Your task to perform on an android device: Open calendar and show me the third week of next month Image 0: 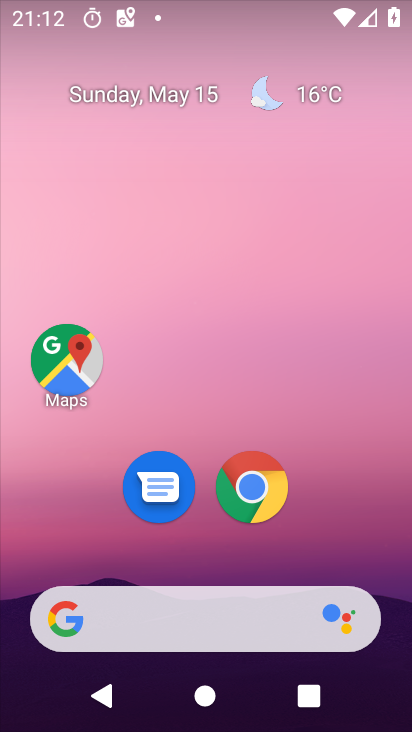
Step 0: drag from (392, 638) to (349, 177)
Your task to perform on an android device: Open calendar and show me the third week of next month Image 1: 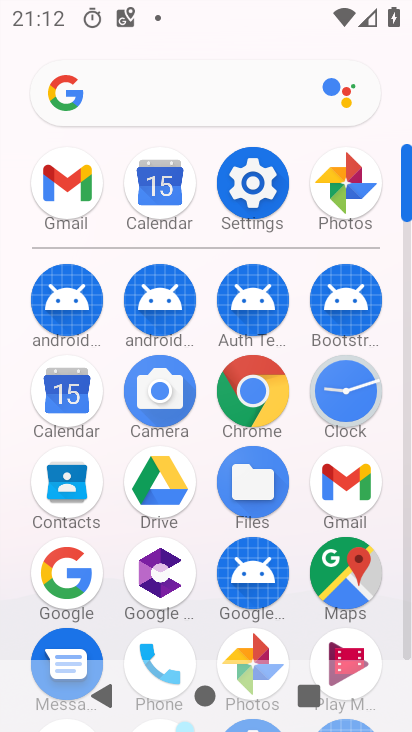
Step 1: click (64, 410)
Your task to perform on an android device: Open calendar and show me the third week of next month Image 2: 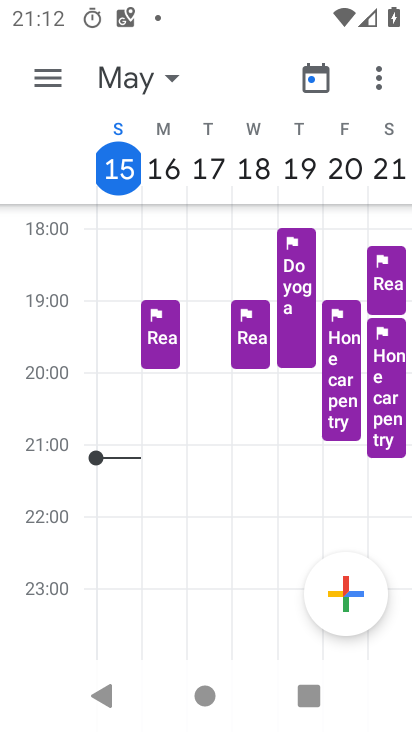
Step 2: click (45, 76)
Your task to perform on an android device: Open calendar and show me the third week of next month Image 3: 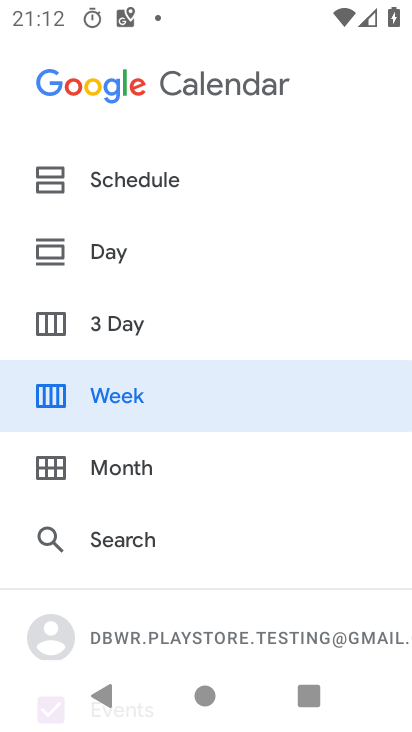
Step 3: click (108, 398)
Your task to perform on an android device: Open calendar and show me the third week of next month Image 4: 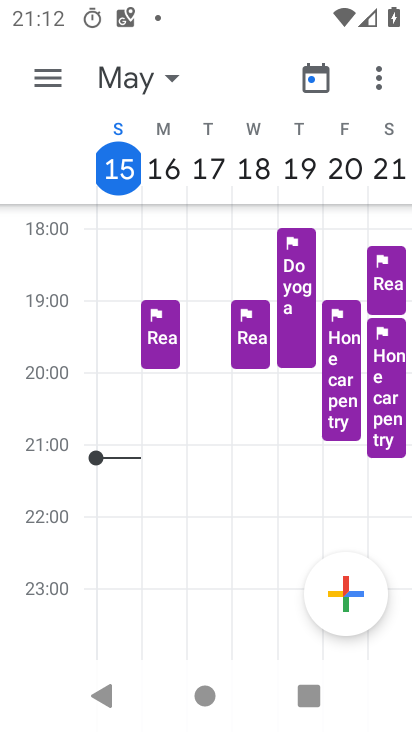
Step 4: click (170, 81)
Your task to perform on an android device: Open calendar and show me the third week of next month Image 5: 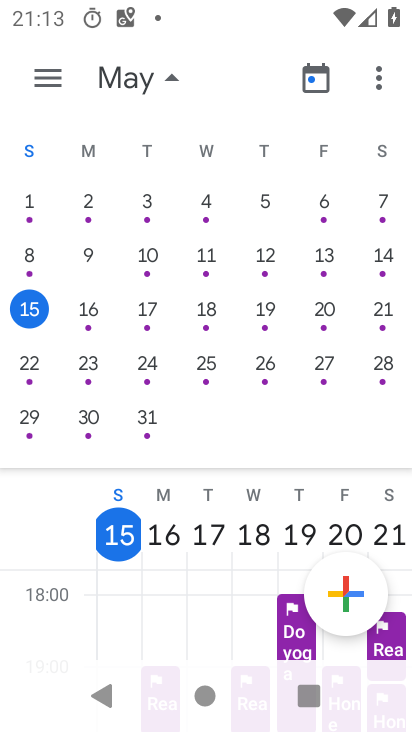
Step 5: drag from (398, 268) to (3, 198)
Your task to perform on an android device: Open calendar and show me the third week of next month Image 6: 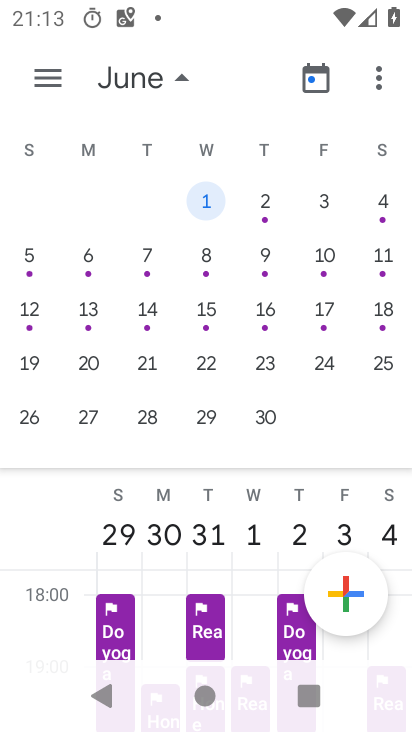
Step 6: click (266, 306)
Your task to perform on an android device: Open calendar and show me the third week of next month Image 7: 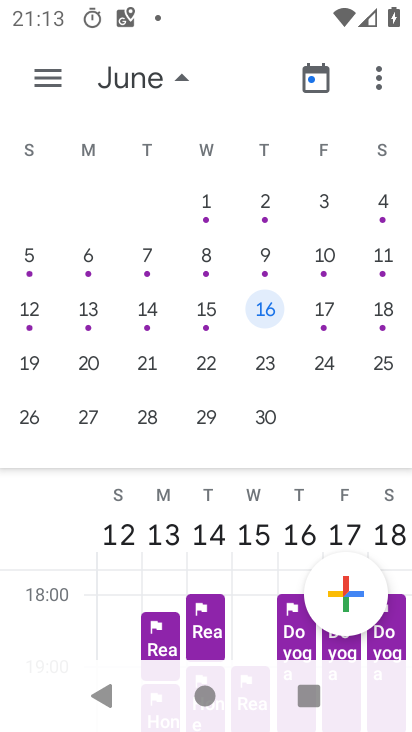
Step 7: click (51, 73)
Your task to perform on an android device: Open calendar and show me the third week of next month Image 8: 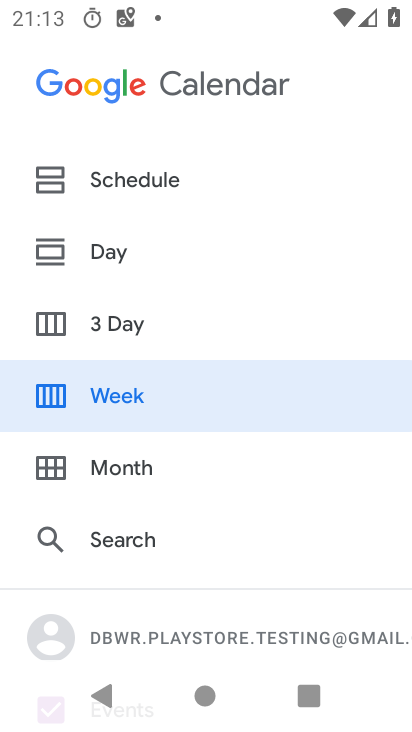
Step 8: click (99, 389)
Your task to perform on an android device: Open calendar and show me the third week of next month Image 9: 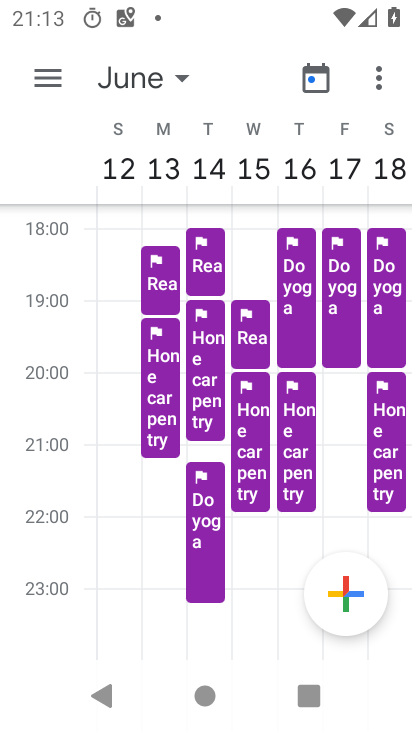
Step 9: task complete